Your task to perform on an android device: Open Youtube and go to "Your channel" Image 0: 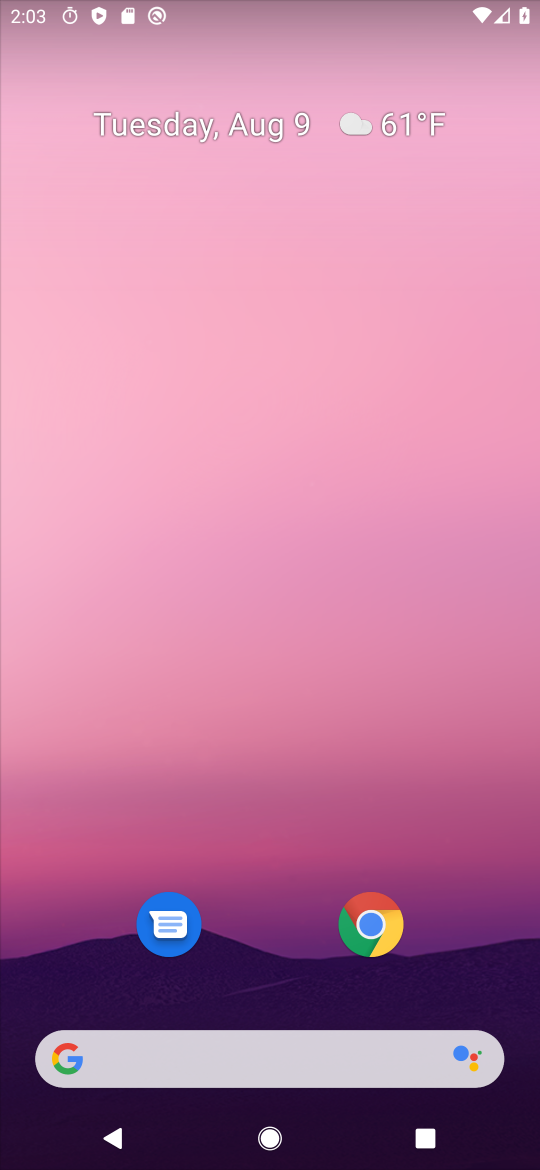
Step 0: drag from (510, 1099) to (349, 140)
Your task to perform on an android device: Open Youtube and go to "Your channel" Image 1: 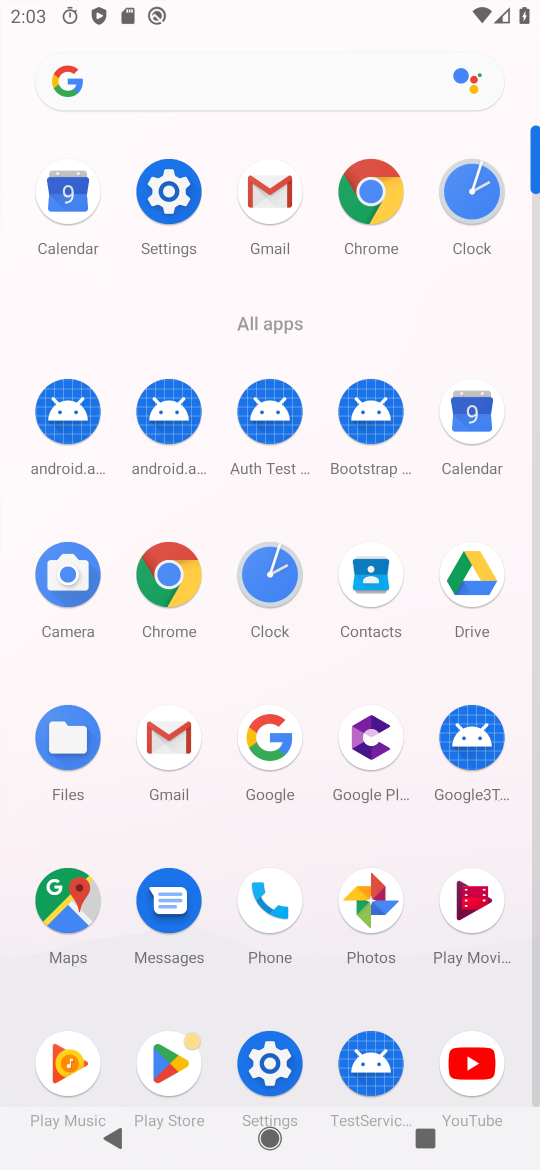
Step 1: click (469, 1068)
Your task to perform on an android device: Open Youtube and go to "Your channel" Image 2: 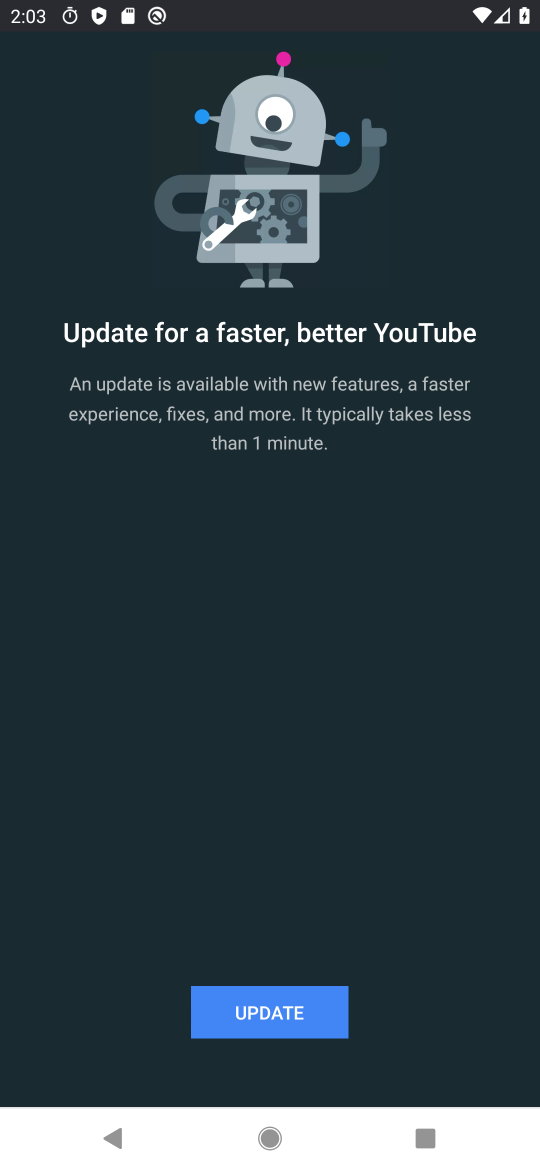
Step 2: click (266, 1001)
Your task to perform on an android device: Open Youtube and go to "Your channel" Image 3: 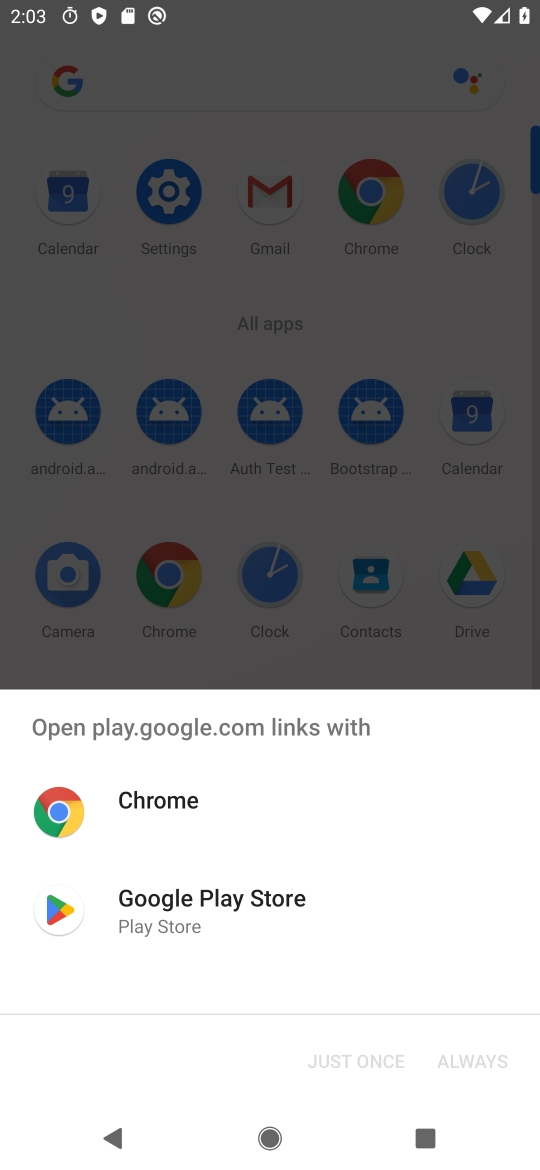
Step 3: click (226, 888)
Your task to perform on an android device: Open Youtube and go to "Your channel" Image 4: 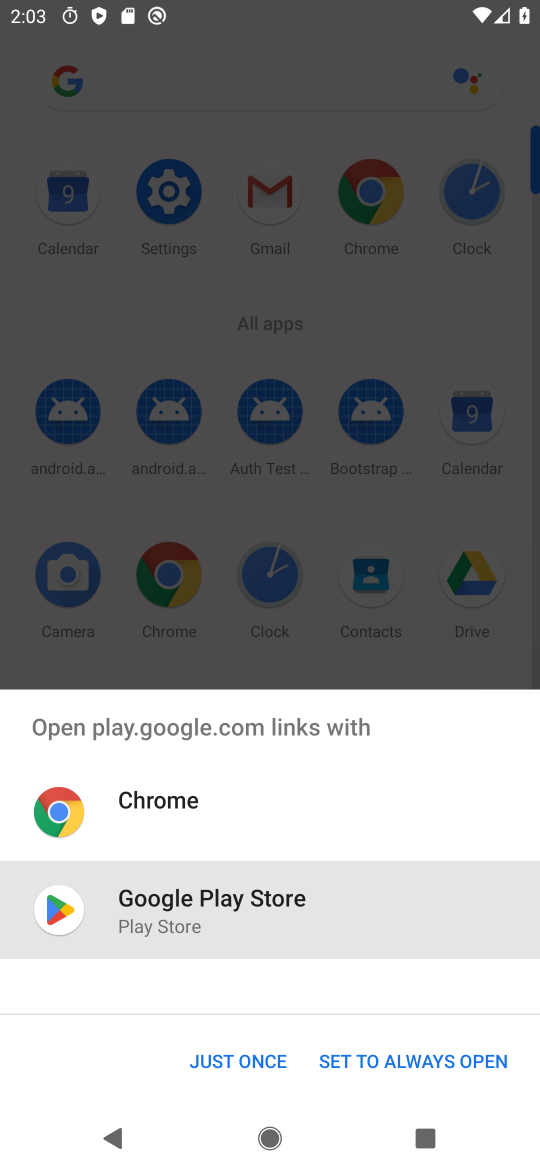
Step 4: click (267, 1051)
Your task to perform on an android device: Open Youtube and go to "Your channel" Image 5: 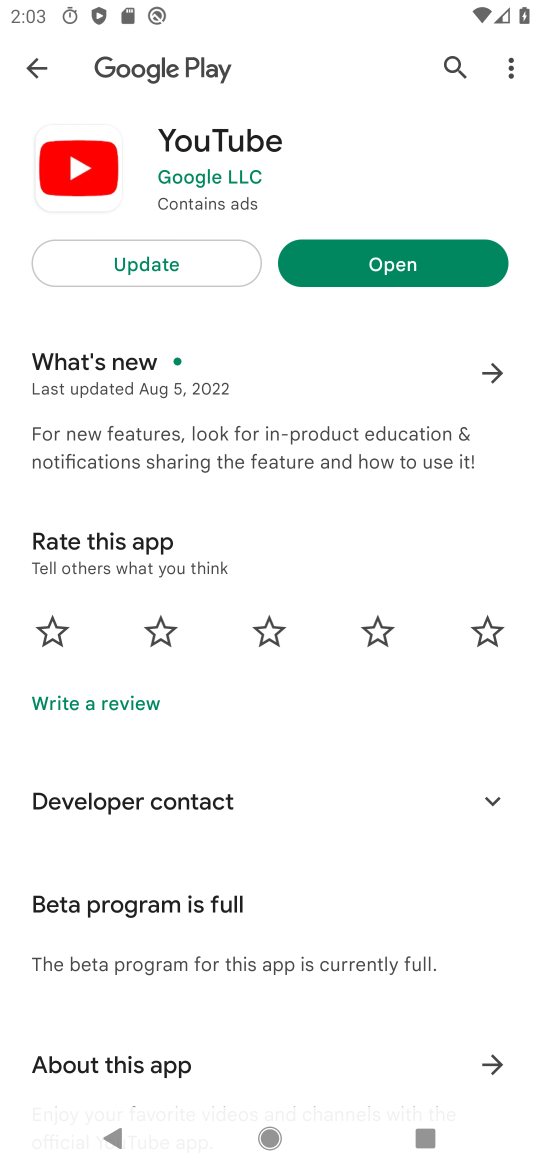
Step 5: click (398, 261)
Your task to perform on an android device: Open Youtube and go to "Your channel" Image 6: 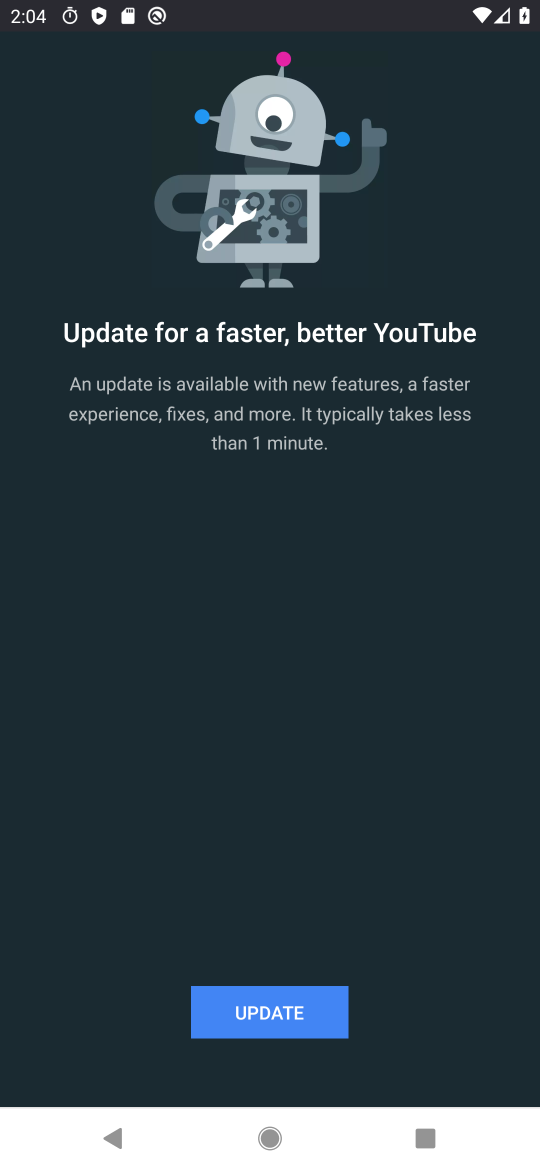
Step 6: click (249, 1008)
Your task to perform on an android device: Open Youtube and go to "Your channel" Image 7: 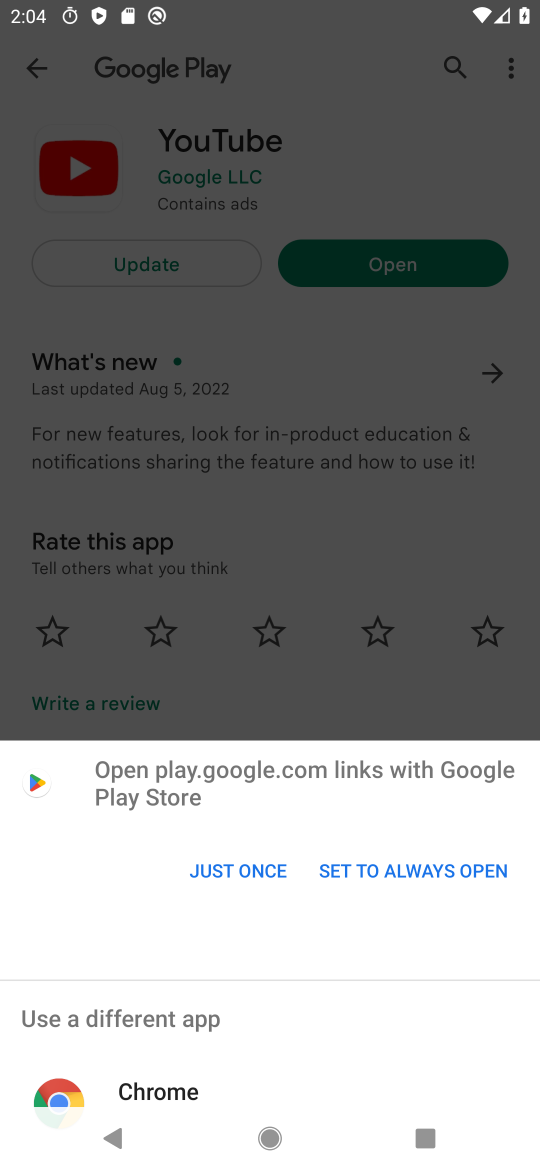
Step 7: drag from (253, 865) to (312, 865)
Your task to perform on an android device: Open Youtube and go to "Your channel" Image 8: 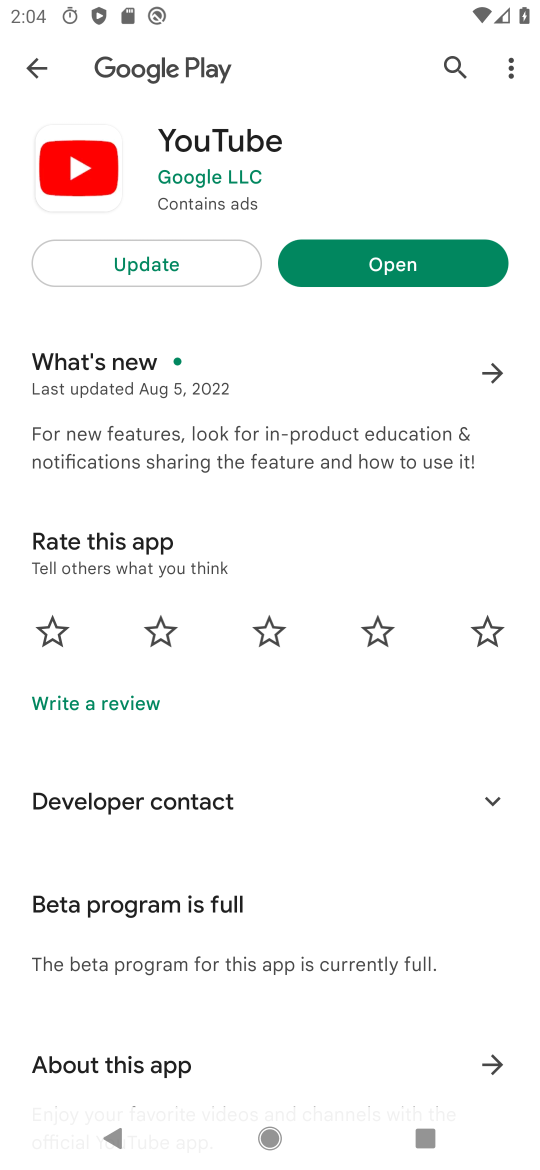
Step 8: click (187, 254)
Your task to perform on an android device: Open Youtube and go to "Your channel" Image 9: 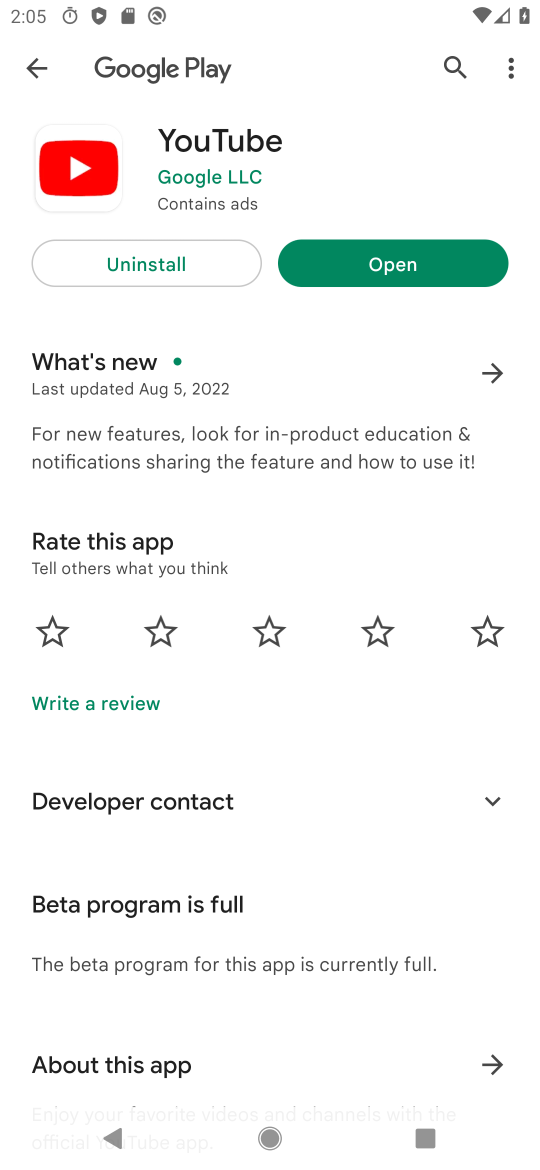
Step 9: click (396, 262)
Your task to perform on an android device: Open Youtube and go to "Your channel" Image 10: 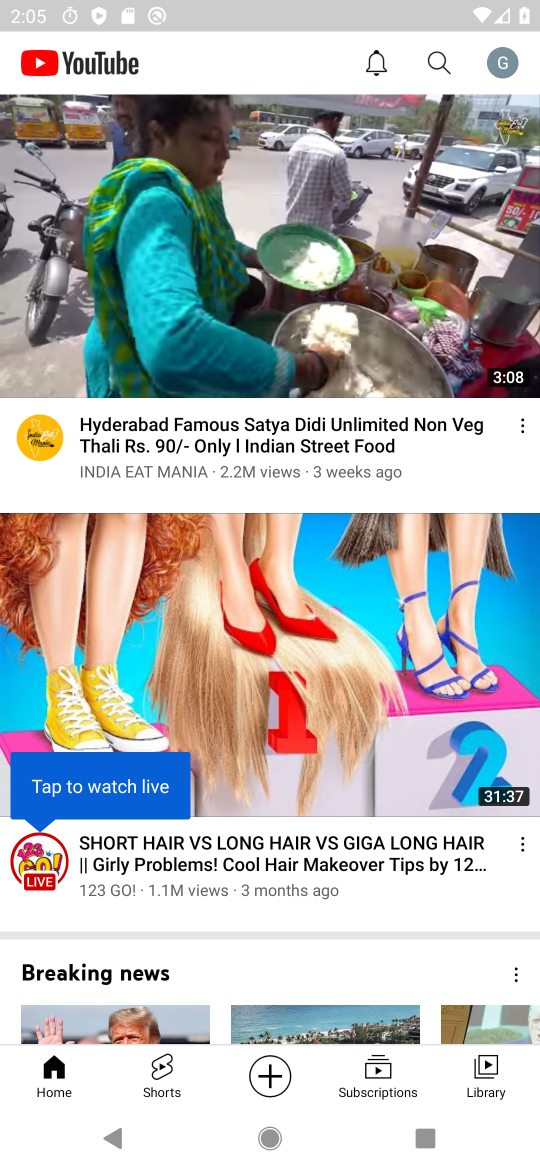
Step 10: click (493, 60)
Your task to perform on an android device: Open Youtube and go to "Your channel" Image 11: 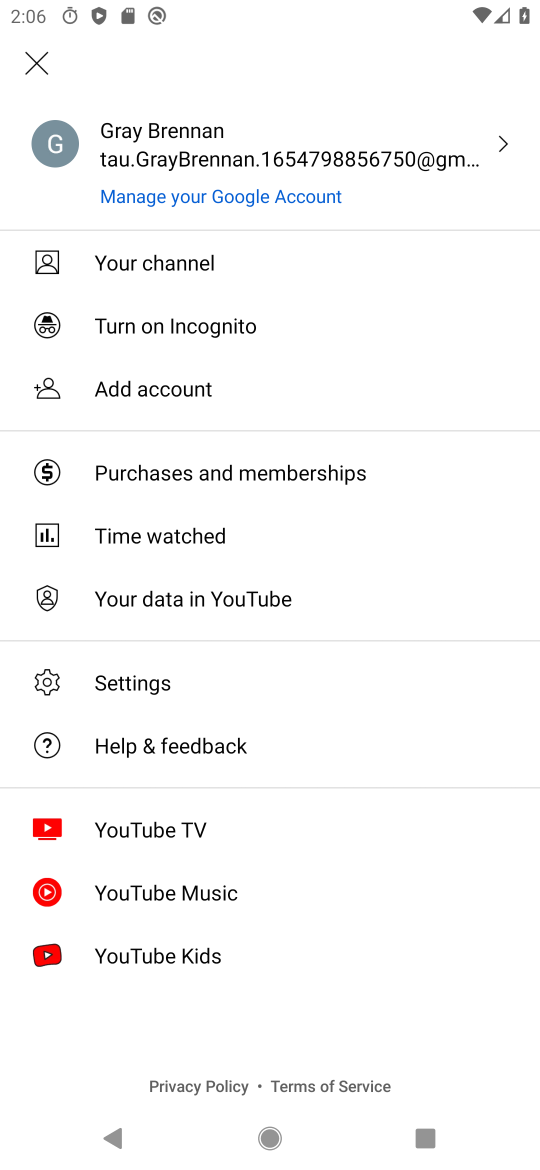
Step 11: click (144, 255)
Your task to perform on an android device: Open Youtube and go to "Your channel" Image 12: 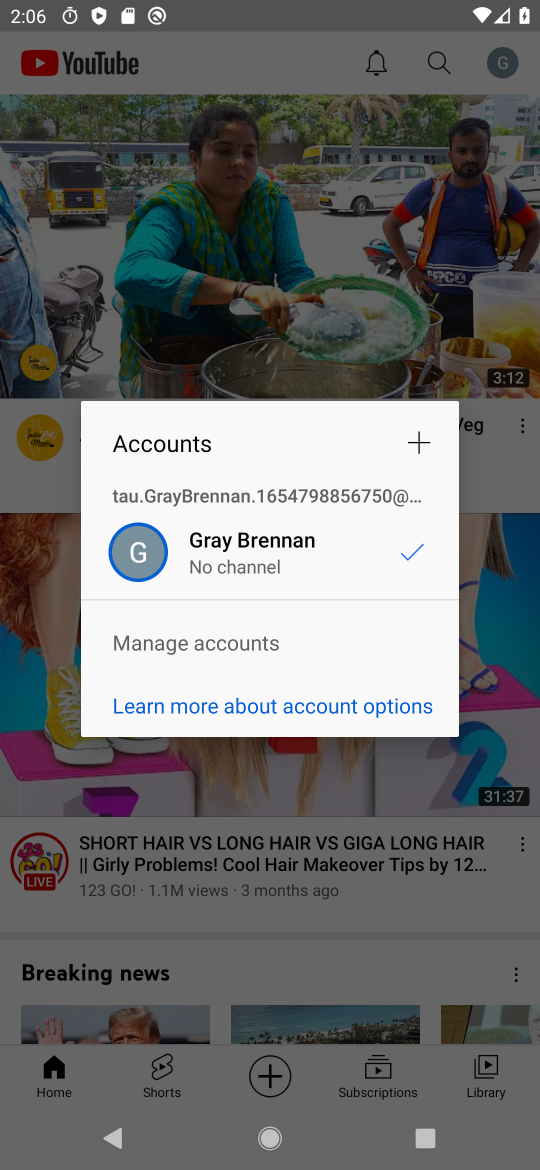
Step 12: task complete